Your task to perform on an android device: turn off wifi Image 0: 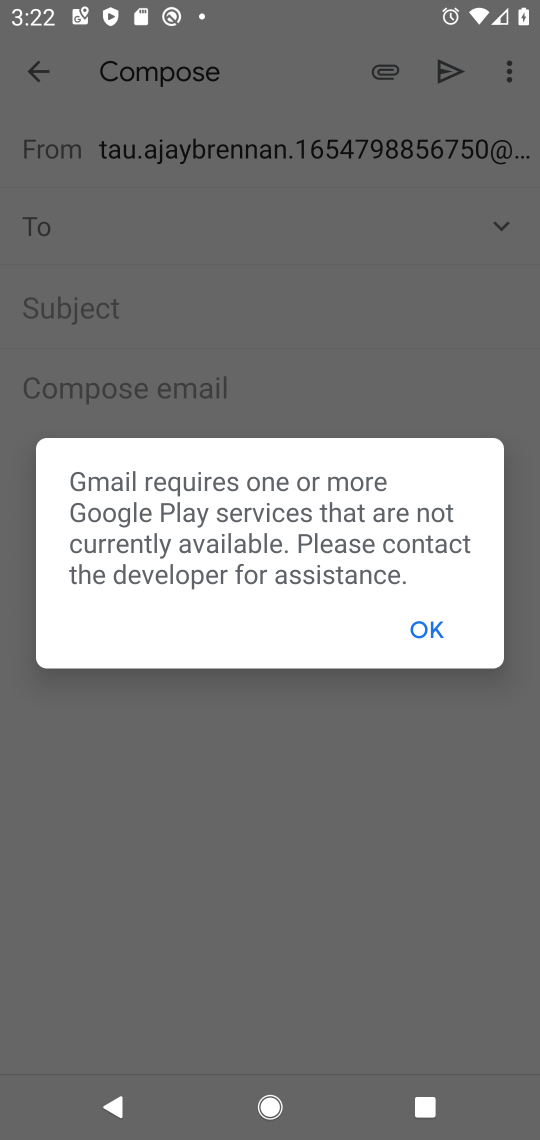
Step 0: press home button
Your task to perform on an android device: turn off wifi Image 1: 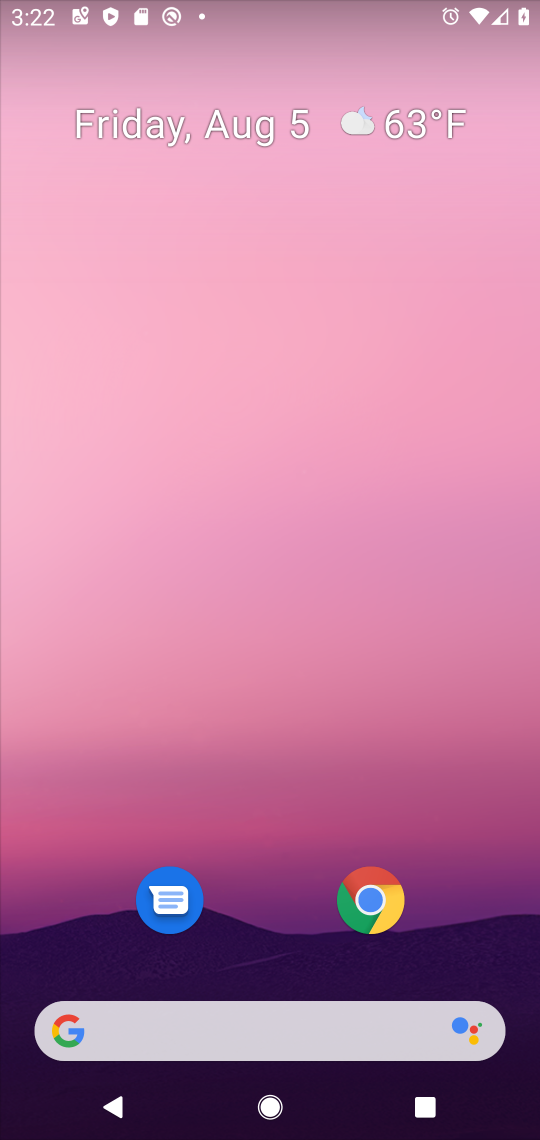
Step 1: drag from (129, 14) to (97, 570)
Your task to perform on an android device: turn off wifi Image 2: 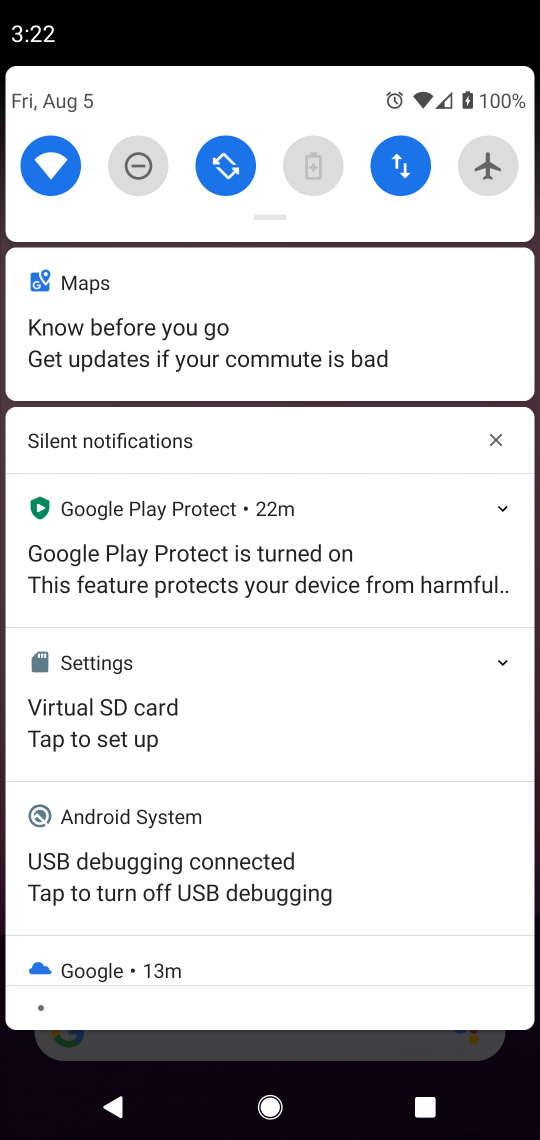
Step 2: click (52, 161)
Your task to perform on an android device: turn off wifi Image 3: 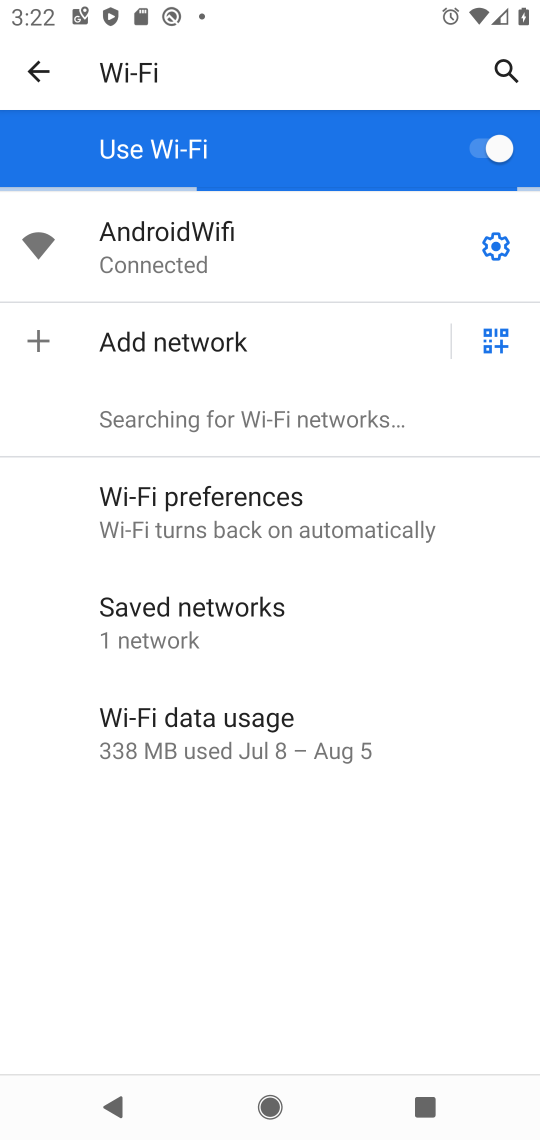
Step 3: click (473, 166)
Your task to perform on an android device: turn off wifi Image 4: 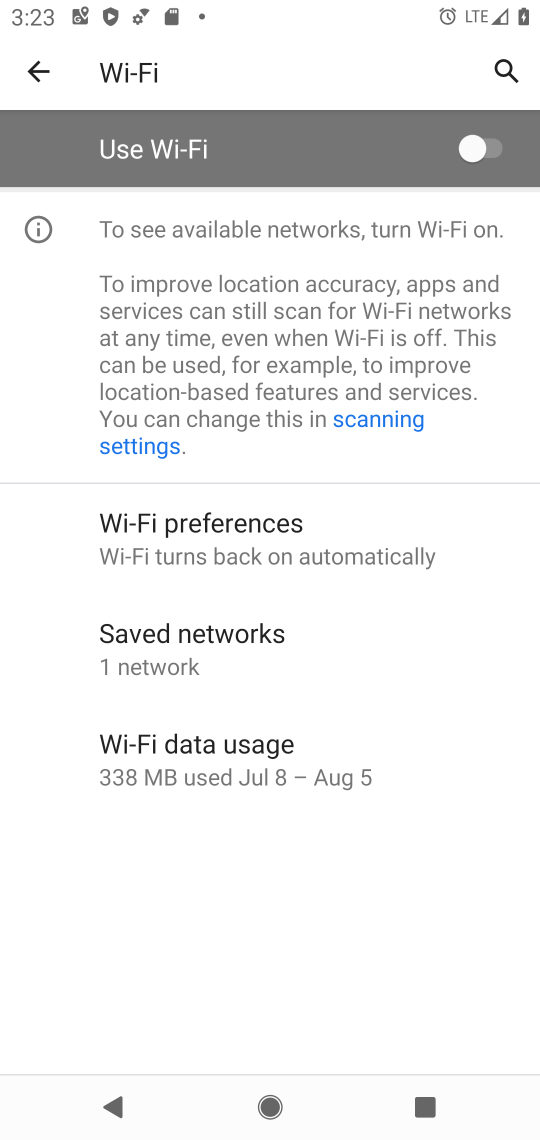
Step 4: task complete